Your task to perform on an android device: Open accessibility settings Image 0: 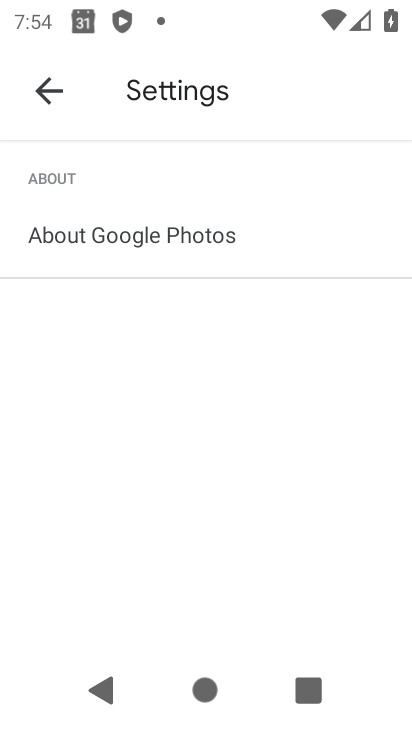
Step 0: drag from (193, 523) to (264, 333)
Your task to perform on an android device: Open accessibility settings Image 1: 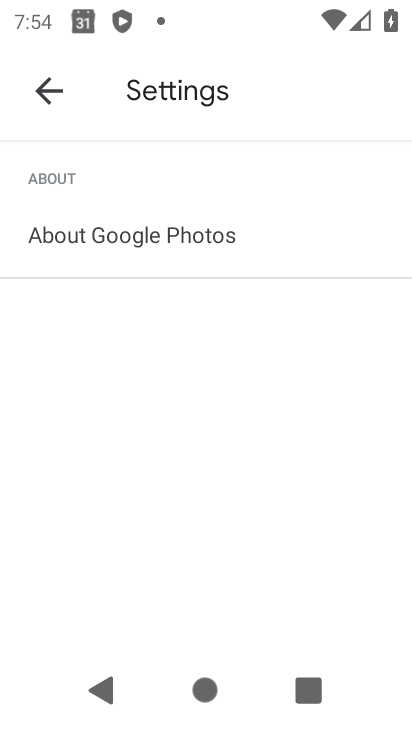
Step 1: press home button
Your task to perform on an android device: Open accessibility settings Image 2: 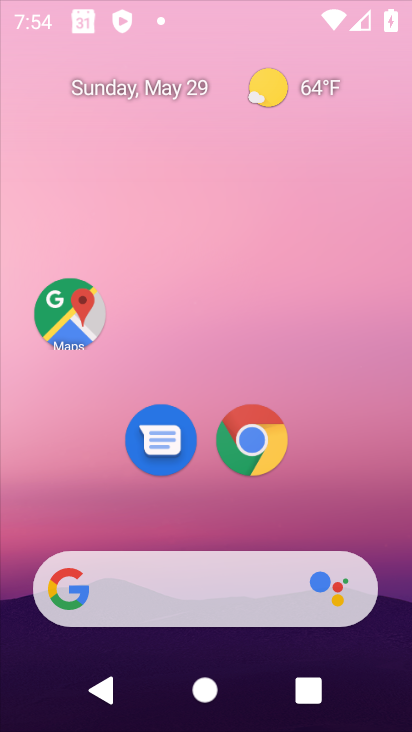
Step 2: drag from (190, 536) to (342, 66)
Your task to perform on an android device: Open accessibility settings Image 3: 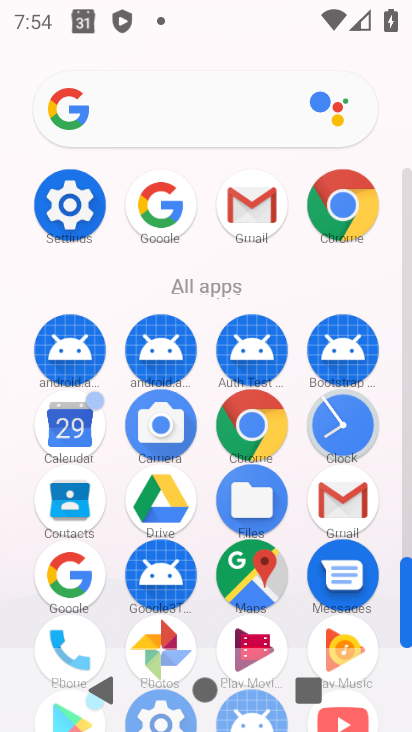
Step 3: click (56, 218)
Your task to perform on an android device: Open accessibility settings Image 4: 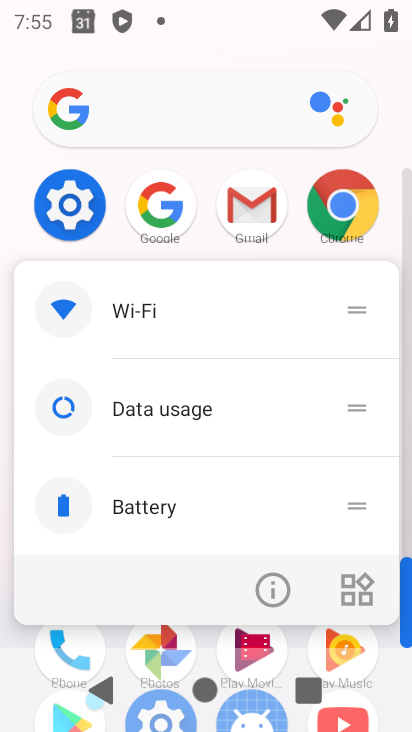
Step 4: click (278, 599)
Your task to perform on an android device: Open accessibility settings Image 5: 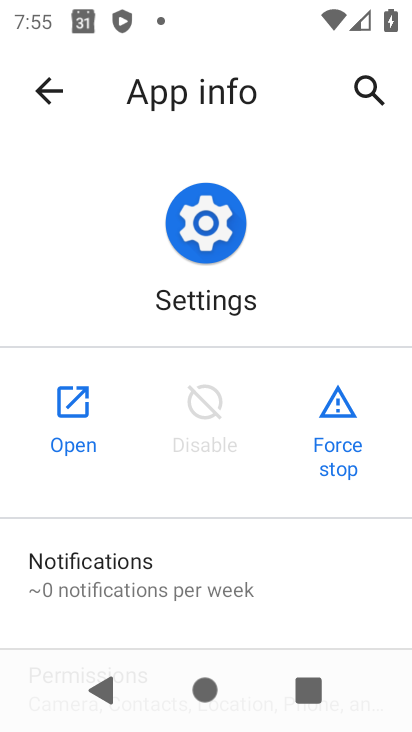
Step 5: click (74, 397)
Your task to perform on an android device: Open accessibility settings Image 6: 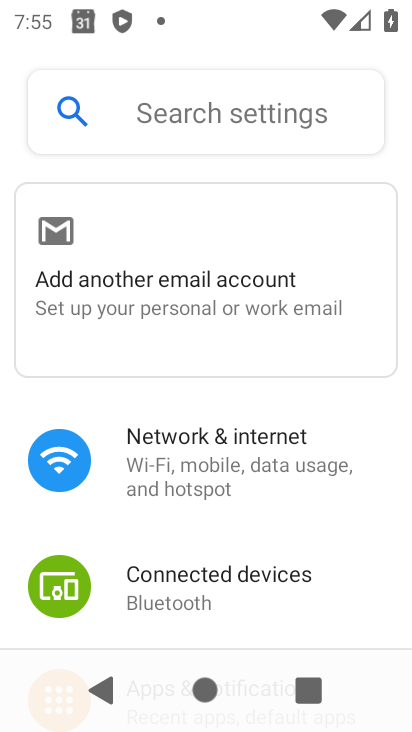
Step 6: drag from (211, 559) to (306, 7)
Your task to perform on an android device: Open accessibility settings Image 7: 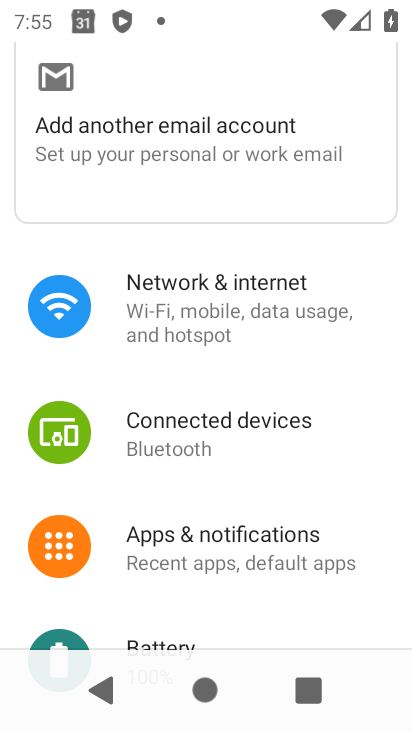
Step 7: drag from (213, 546) to (342, 45)
Your task to perform on an android device: Open accessibility settings Image 8: 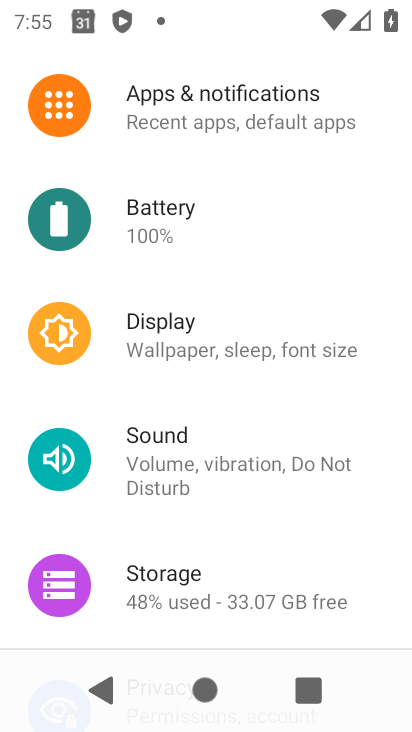
Step 8: drag from (227, 453) to (341, 59)
Your task to perform on an android device: Open accessibility settings Image 9: 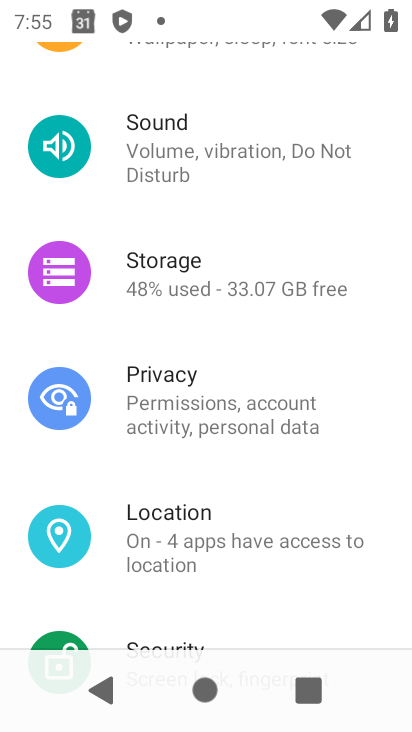
Step 9: drag from (229, 568) to (332, 105)
Your task to perform on an android device: Open accessibility settings Image 10: 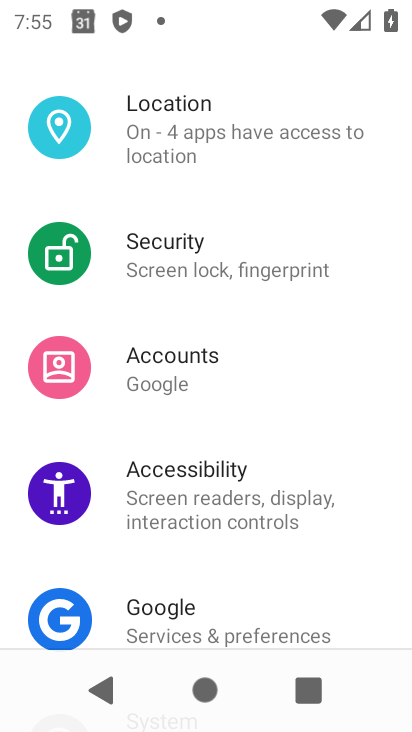
Step 10: click (247, 470)
Your task to perform on an android device: Open accessibility settings Image 11: 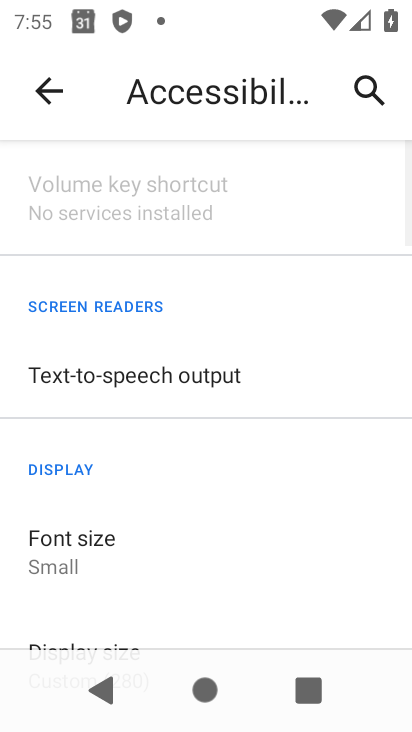
Step 11: task complete